Your task to perform on an android device: Is it going to rain tomorrow? Image 0: 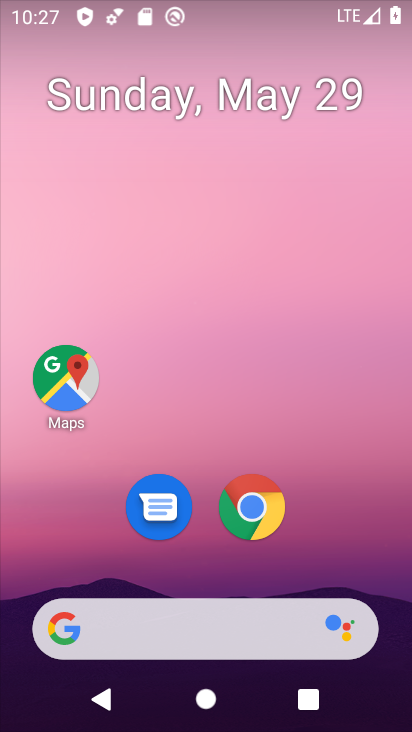
Step 0: drag from (7, 278) to (391, 285)
Your task to perform on an android device: Is it going to rain tomorrow? Image 1: 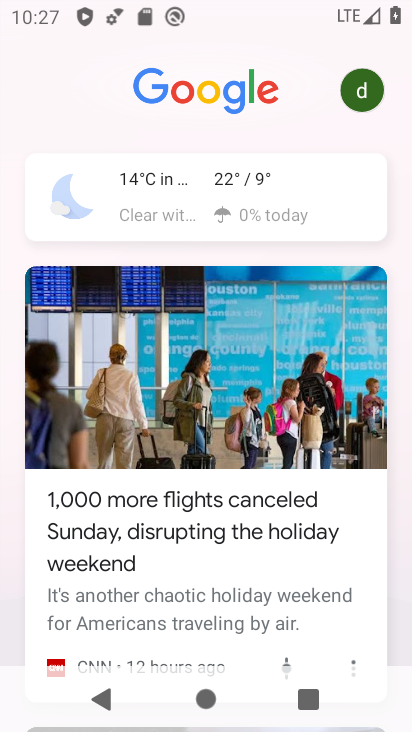
Step 1: click (290, 198)
Your task to perform on an android device: Is it going to rain tomorrow? Image 2: 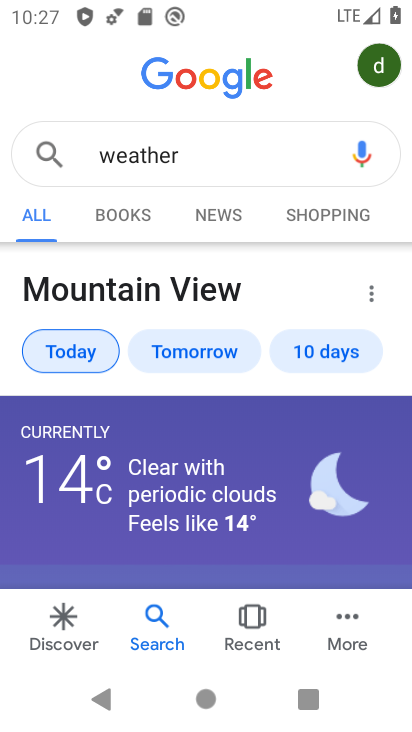
Step 2: task complete